Your task to perform on an android device: delete location history Image 0: 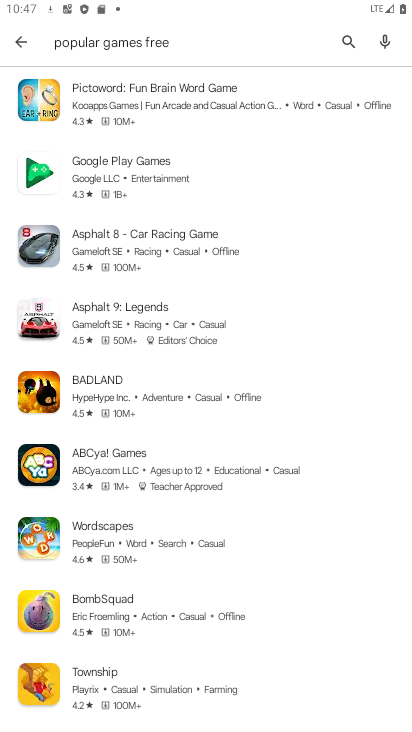
Step 0: press home button
Your task to perform on an android device: delete location history Image 1: 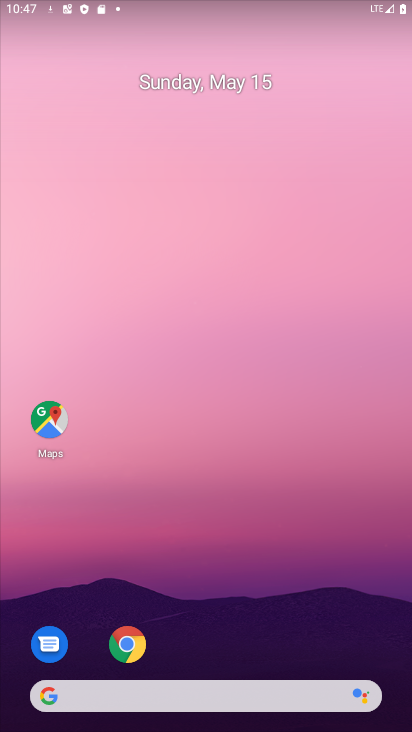
Step 1: drag from (273, 728) to (306, 360)
Your task to perform on an android device: delete location history Image 2: 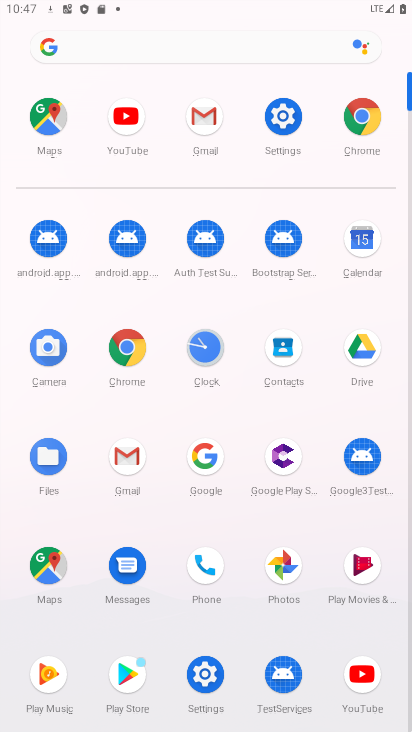
Step 2: click (272, 134)
Your task to perform on an android device: delete location history Image 3: 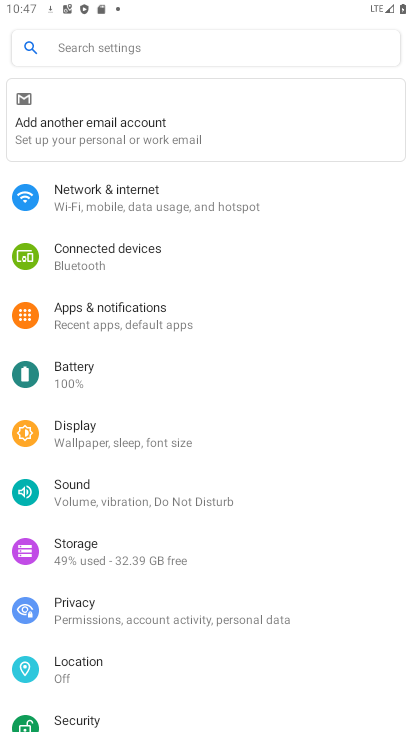
Step 3: click (219, 36)
Your task to perform on an android device: delete location history Image 4: 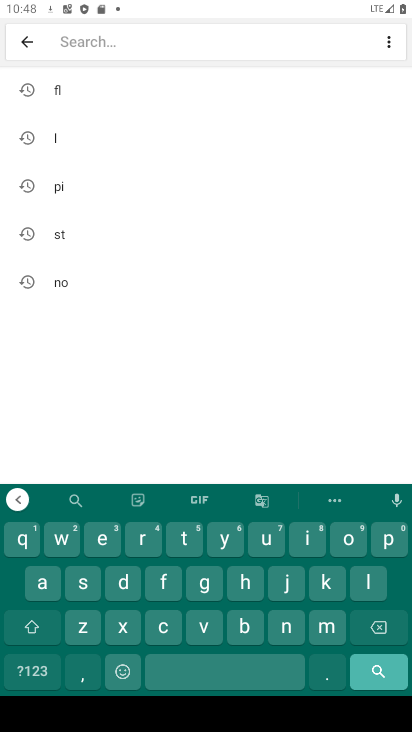
Step 4: click (87, 143)
Your task to perform on an android device: delete location history Image 5: 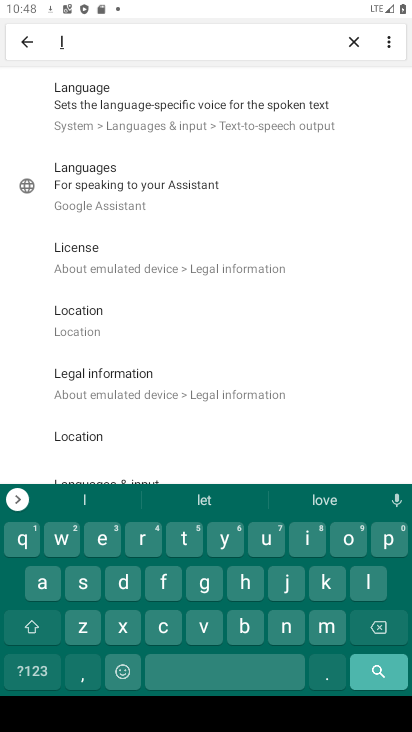
Step 5: click (103, 303)
Your task to perform on an android device: delete location history Image 6: 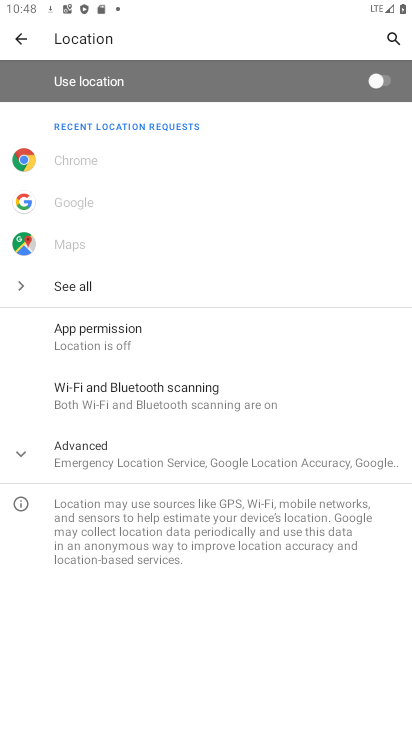
Step 6: click (47, 444)
Your task to perform on an android device: delete location history Image 7: 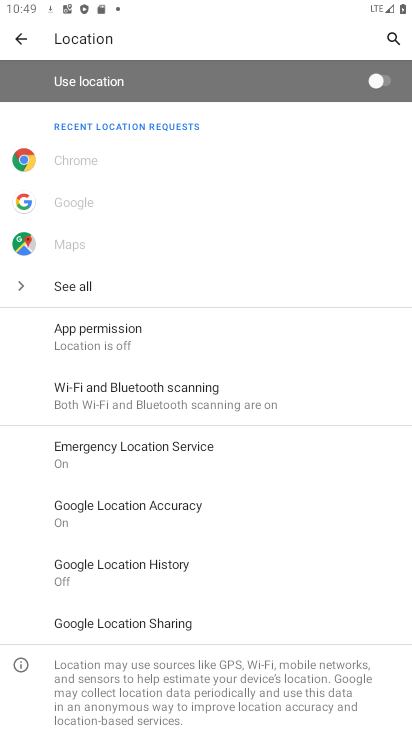
Step 7: click (104, 557)
Your task to perform on an android device: delete location history Image 8: 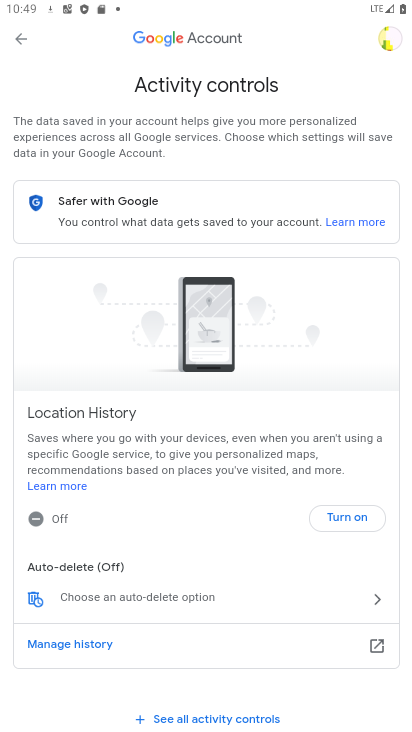
Step 8: task complete